Your task to perform on an android device: Go to location settings Image 0: 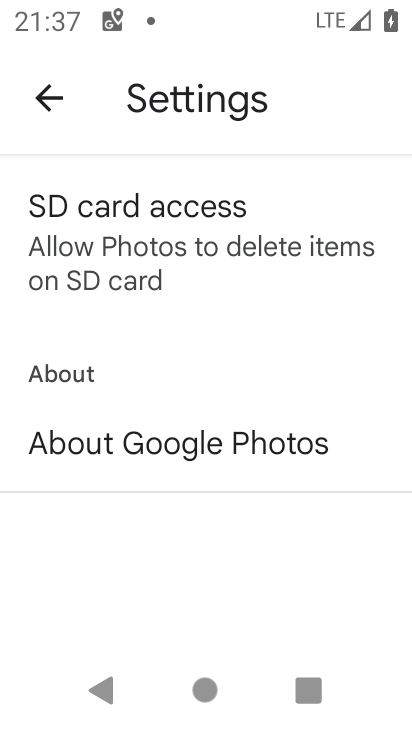
Step 0: click (312, 563)
Your task to perform on an android device: Go to location settings Image 1: 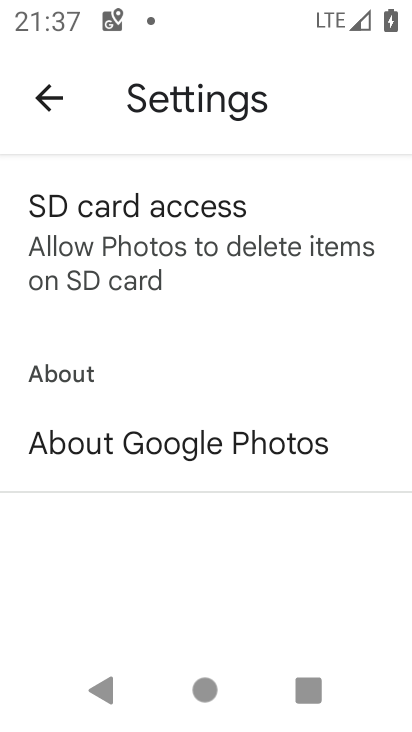
Step 1: press back button
Your task to perform on an android device: Go to location settings Image 2: 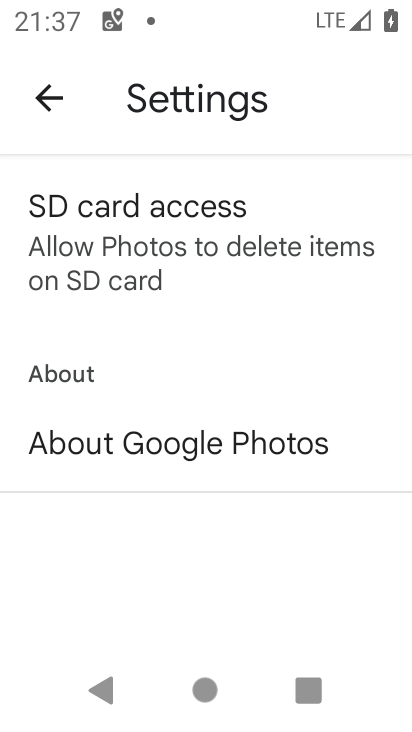
Step 2: press home button
Your task to perform on an android device: Go to location settings Image 3: 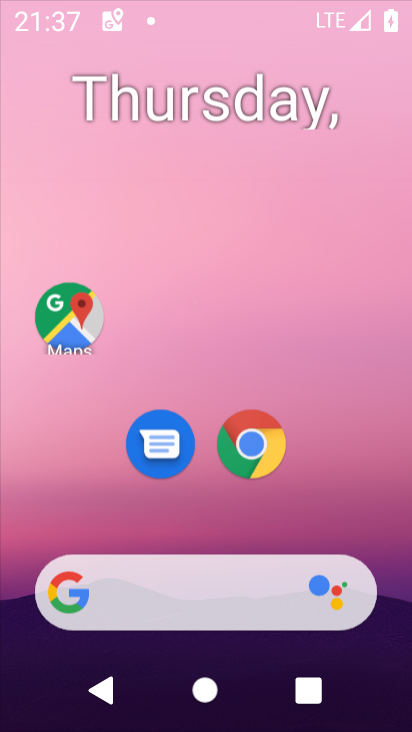
Step 3: press home button
Your task to perform on an android device: Go to location settings Image 4: 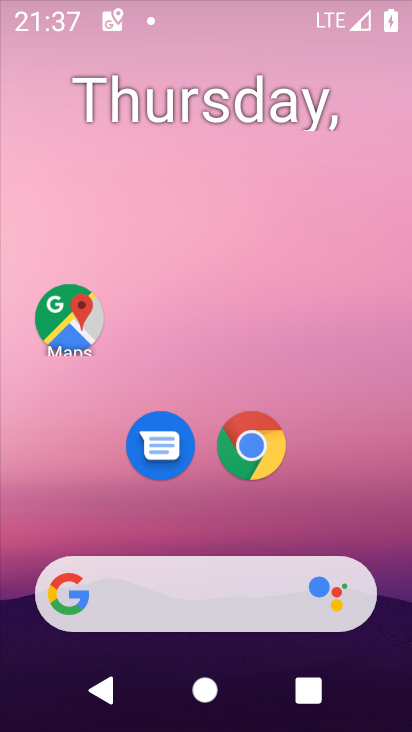
Step 4: drag from (213, 580) to (373, 43)
Your task to perform on an android device: Go to location settings Image 5: 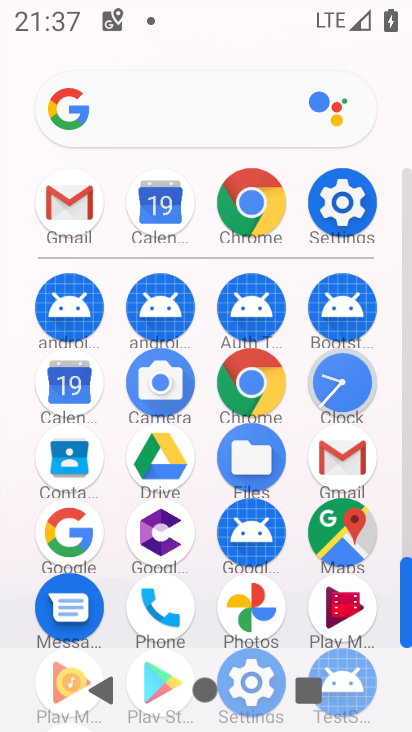
Step 5: click (324, 199)
Your task to perform on an android device: Go to location settings Image 6: 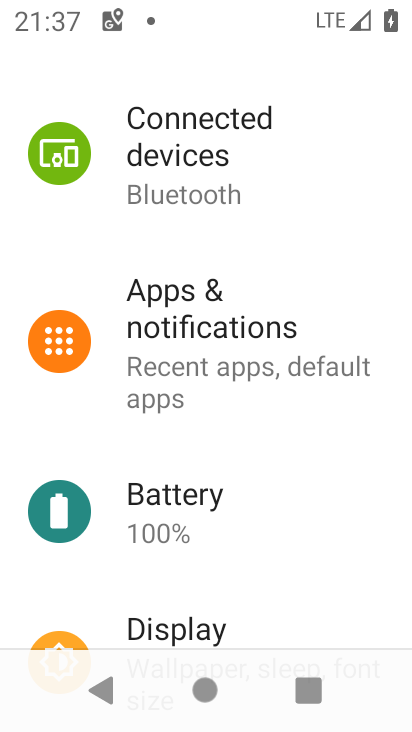
Step 6: drag from (230, 553) to (325, 129)
Your task to perform on an android device: Go to location settings Image 7: 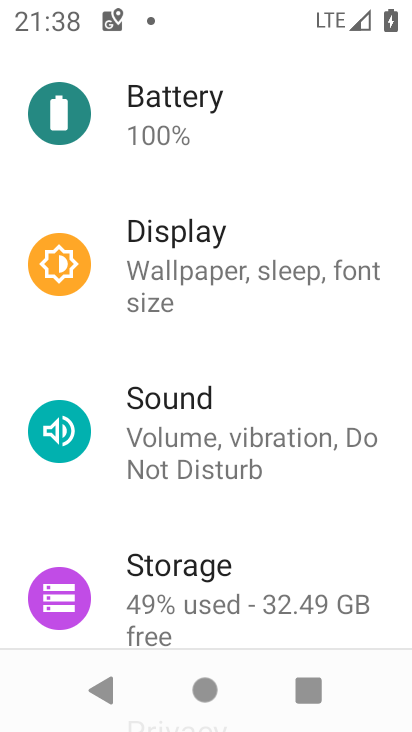
Step 7: drag from (221, 550) to (311, 55)
Your task to perform on an android device: Go to location settings Image 8: 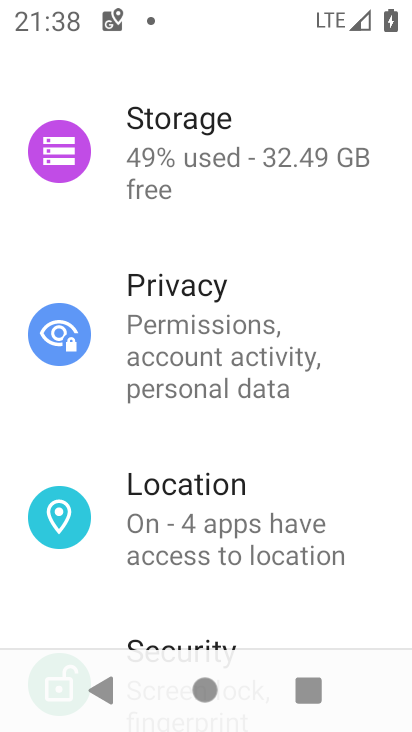
Step 8: click (191, 500)
Your task to perform on an android device: Go to location settings Image 9: 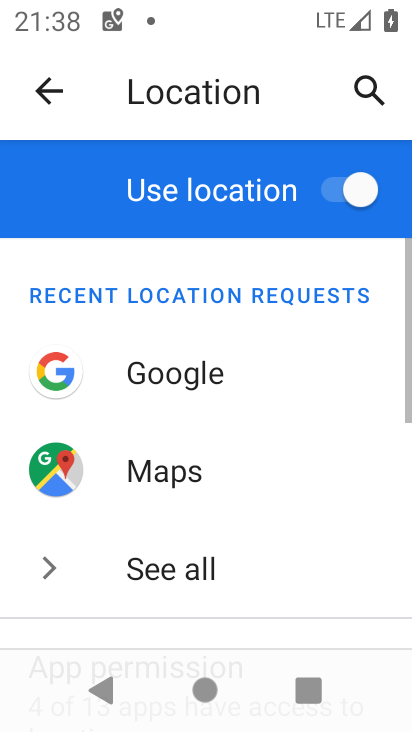
Step 9: drag from (203, 459) to (277, 78)
Your task to perform on an android device: Go to location settings Image 10: 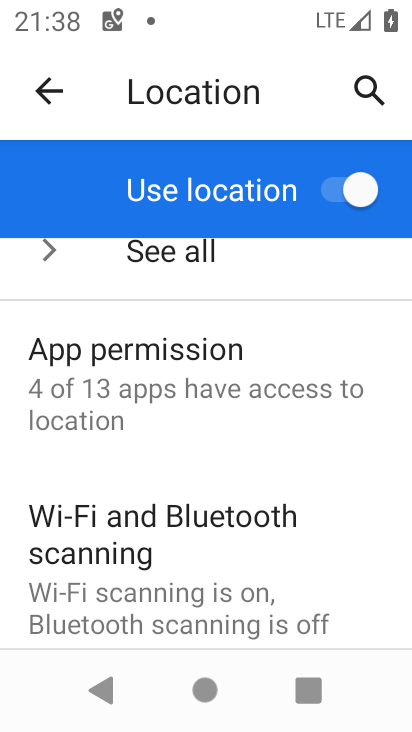
Step 10: drag from (208, 610) to (266, 401)
Your task to perform on an android device: Go to location settings Image 11: 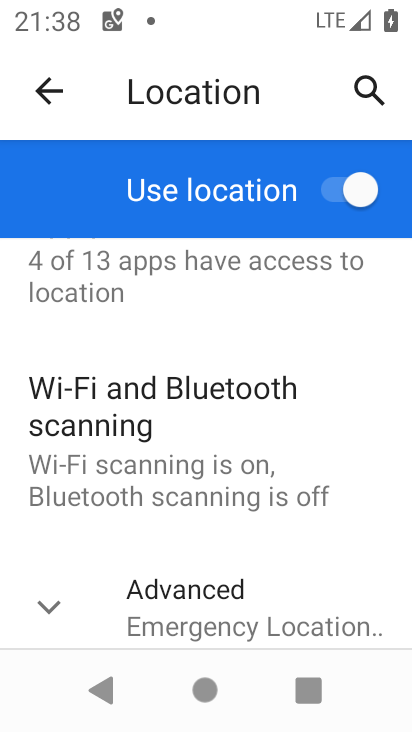
Step 11: drag from (207, 567) to (261, 402)
Your task to perform on an android device: Go to location settings Image 12: 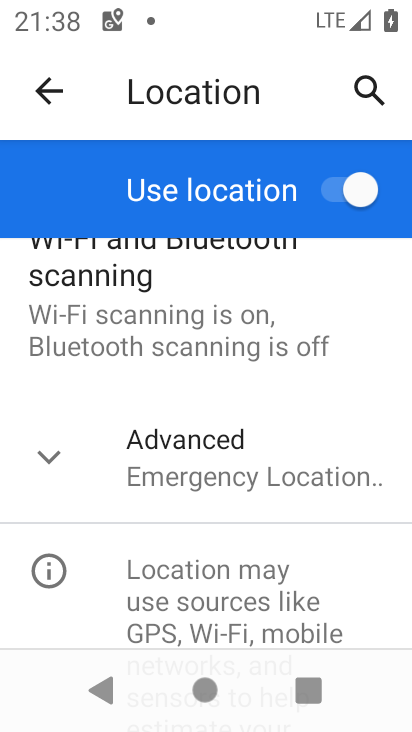
Step 12: click (144, 477)
Your task to perform on an android device: Go to location settings Image 13: 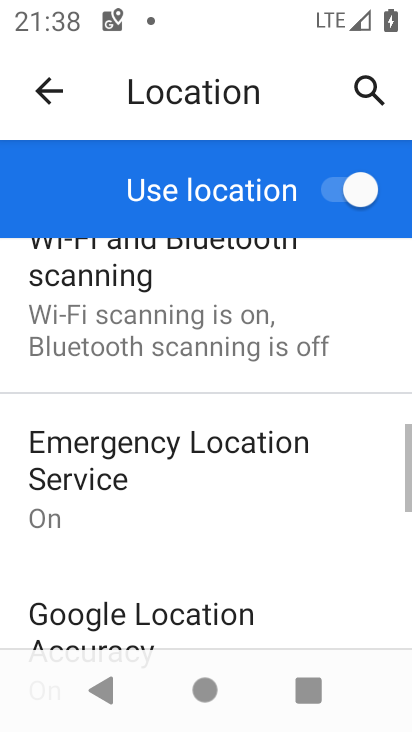
Step 13: task complete